Your task to perform on an android device: turn on javascript in the chrome app Image 0: 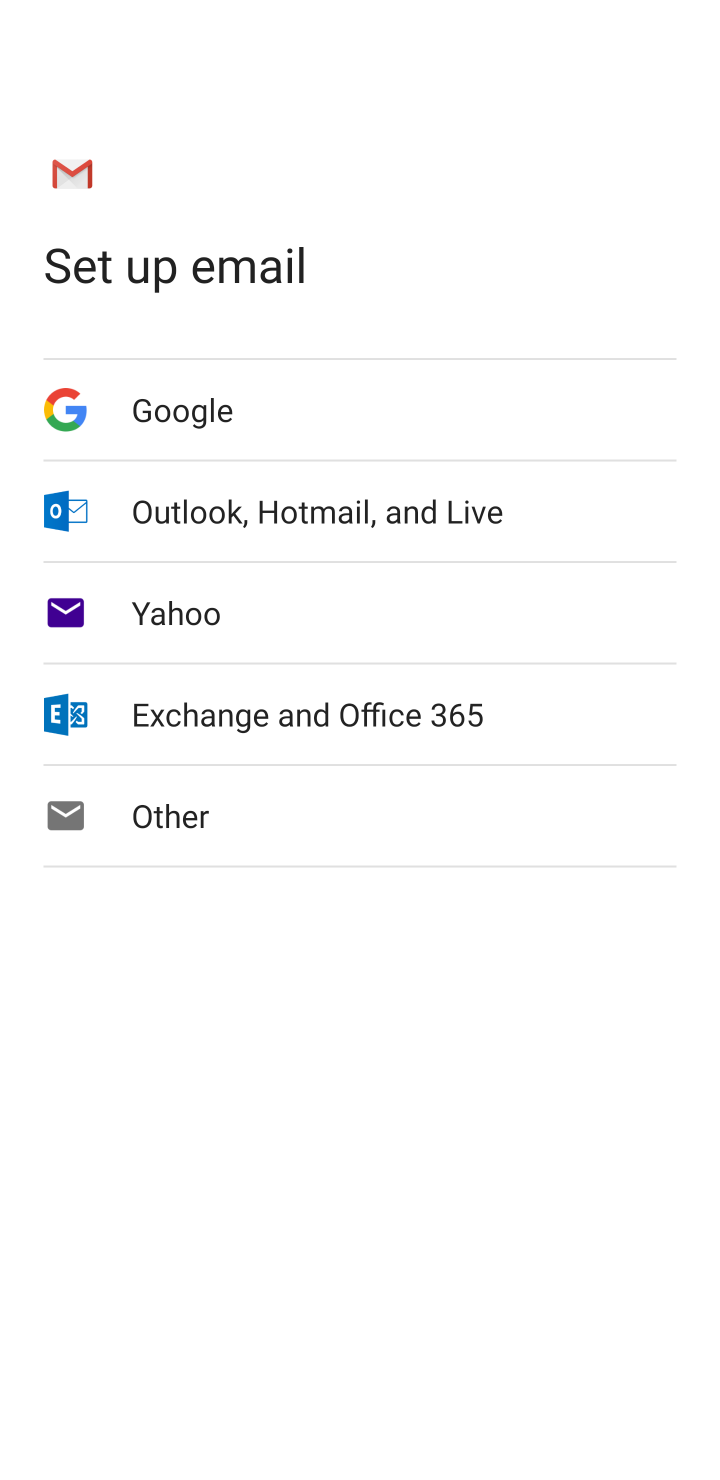
Step 0: press home button
Your task to perform on an android device: turn on javascript in the chrome app Image 1: 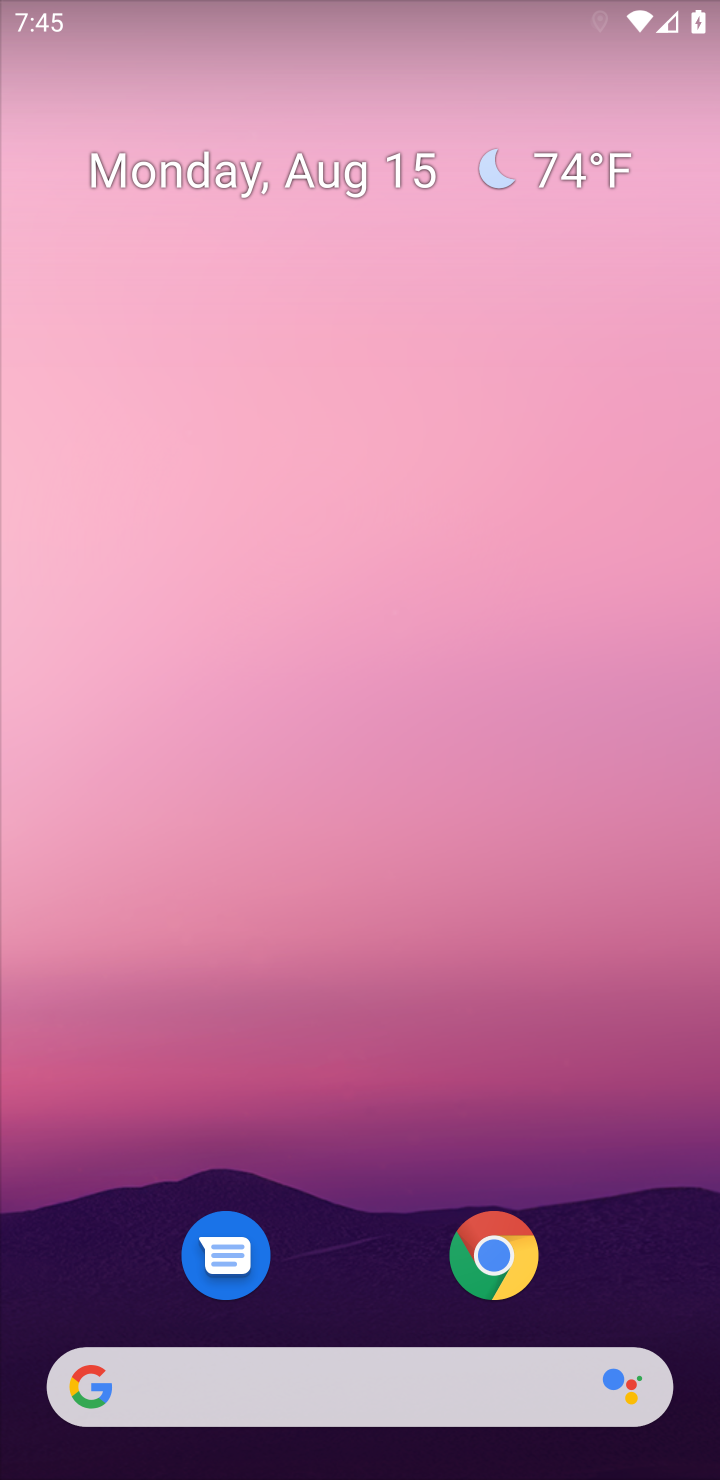
Step 1: click (484, 1248)
Your task to perform on an android device: turn on javascript in the chrome app Image 2: 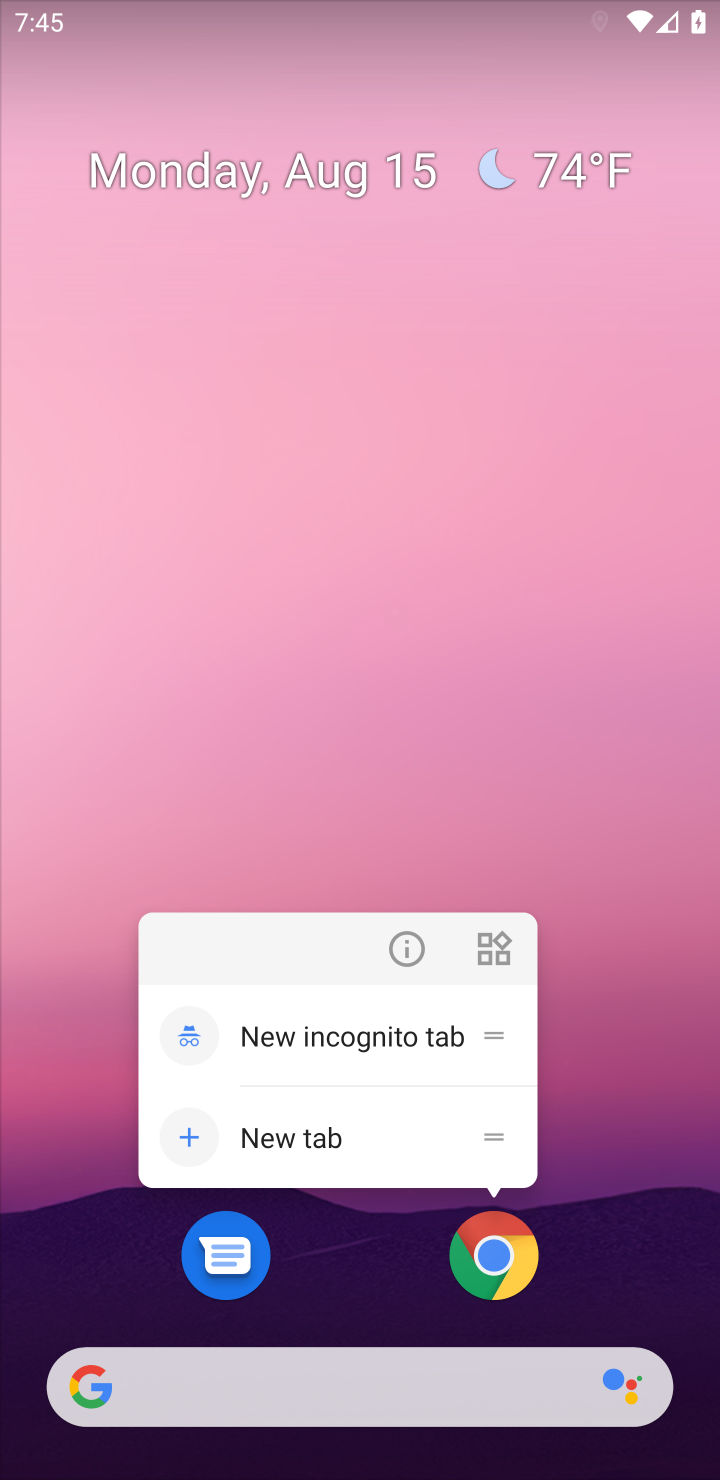
Step 2: click (623, 1225)
Your task to perform on an android device: turn on javascript in the chrome app Image 3: 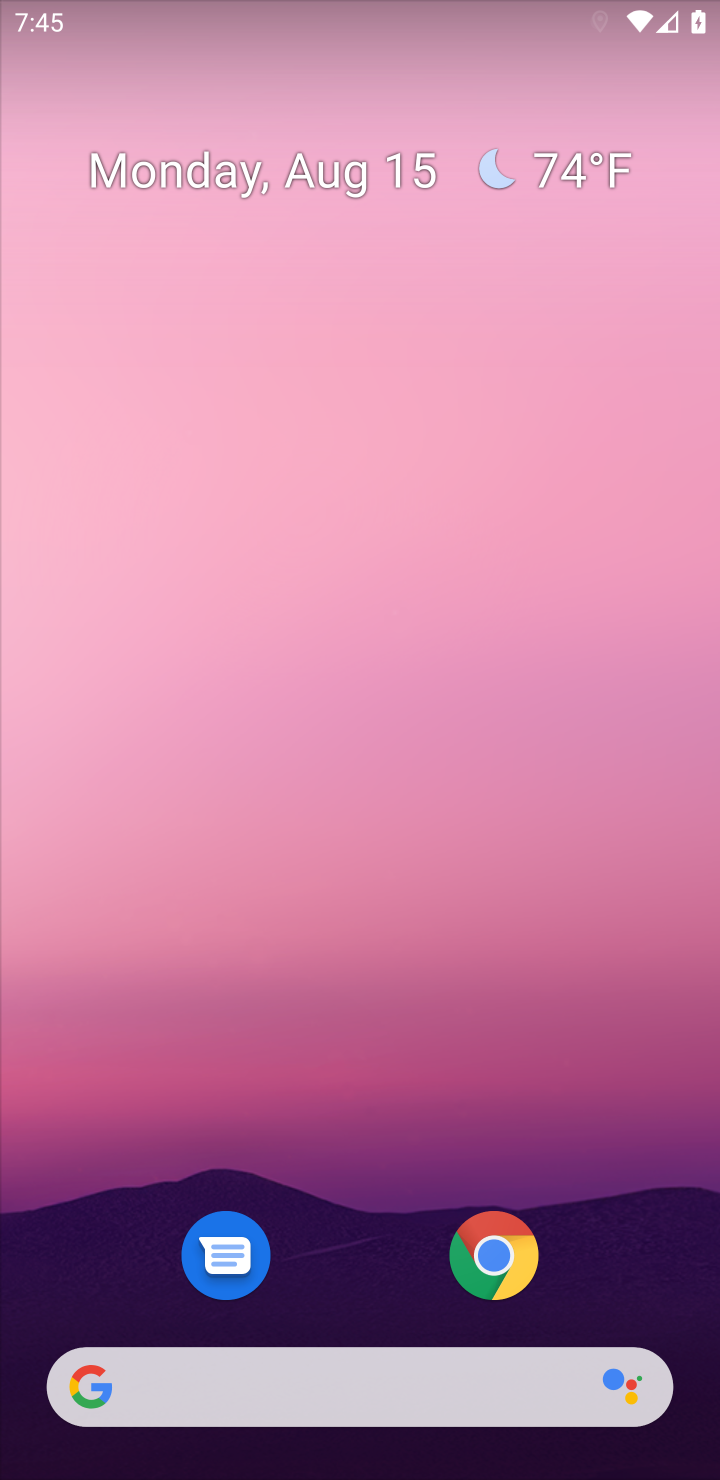
Step 3: drag from (602, 1311) to (592, 0)
Your task to perform on an android device: turn on javascript in the chrome app Image 4: 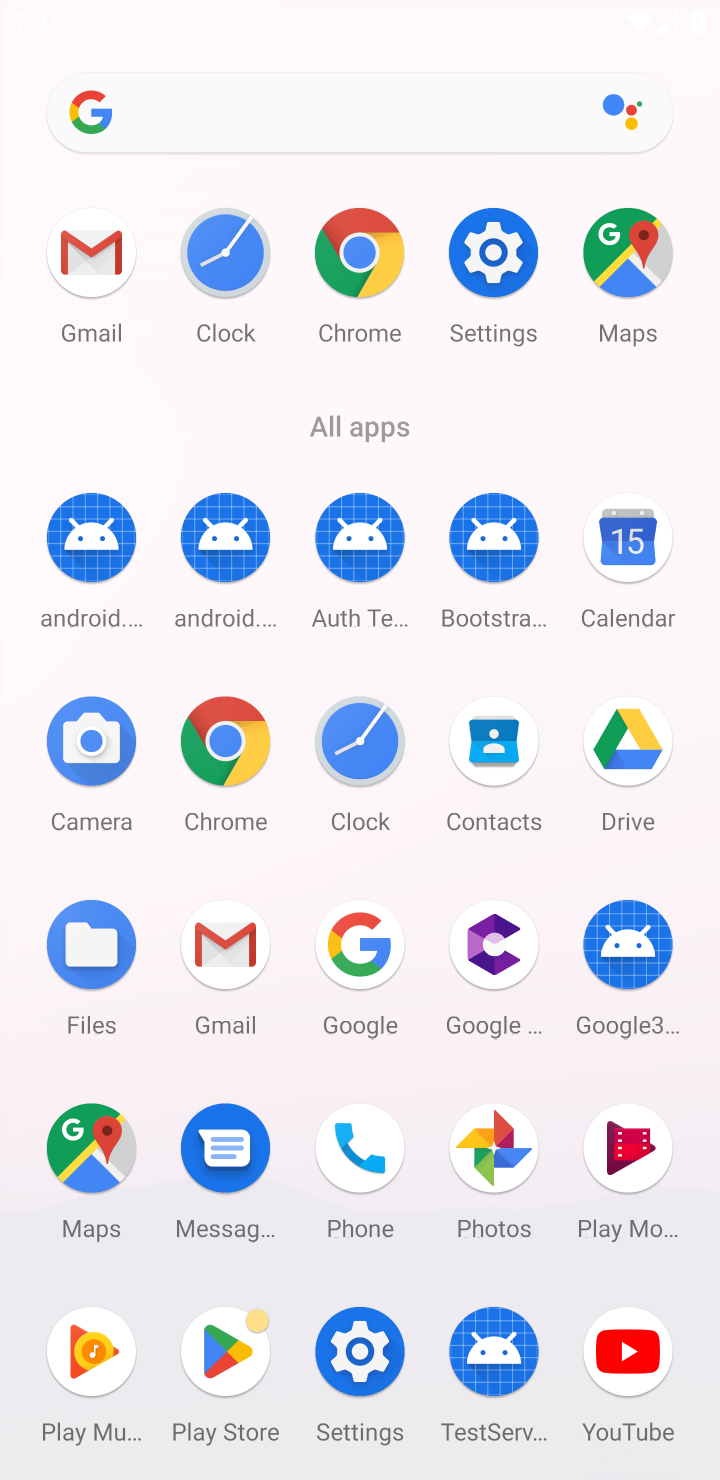
Step 4: click (360, 247)
Your task to perform on an android device: turn on javascript in the chrome app Image 5: 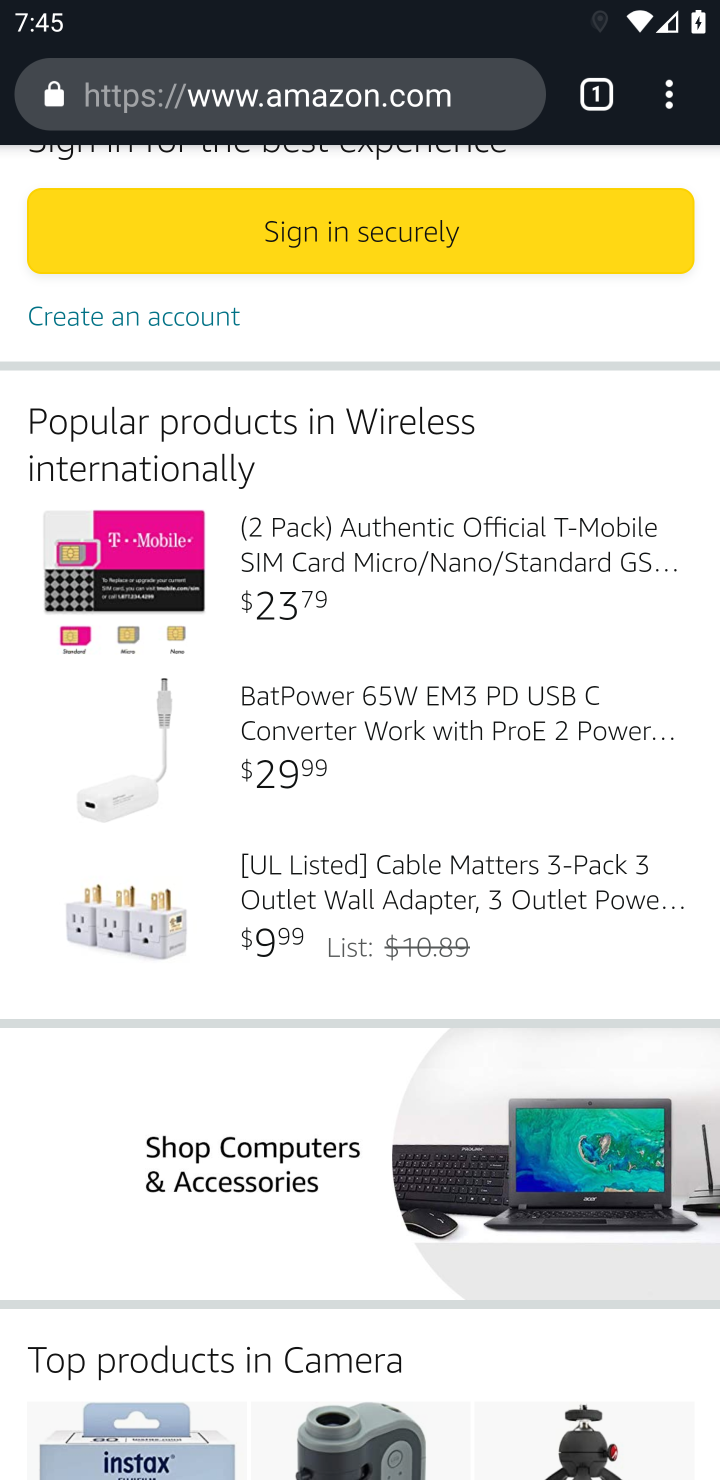
Step 5: click (669, 92)
Your task to perform on an android device: turn on javascript in the chrome app Image 6: 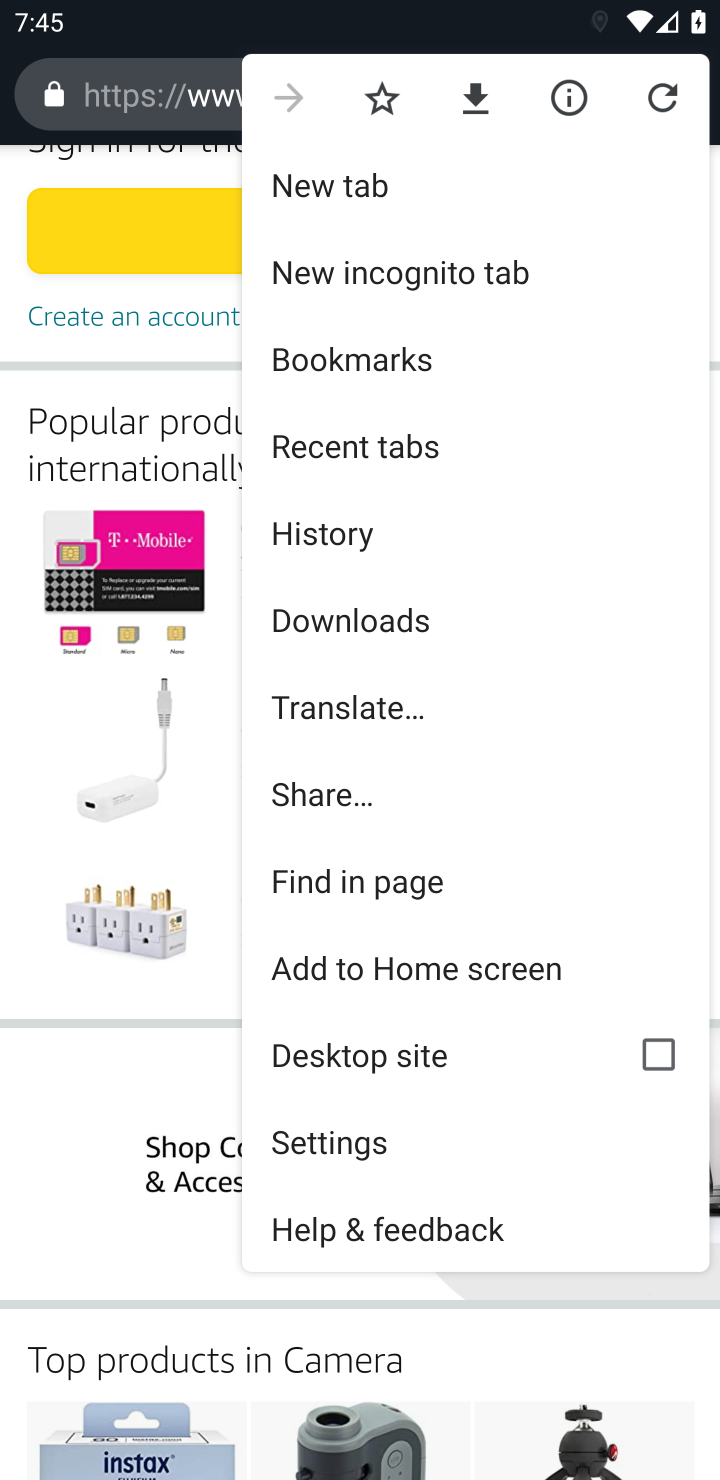
Step 6: click (393, 1138)
Your task to perform on an android device: turn on javascript in the chrome app Image 7: 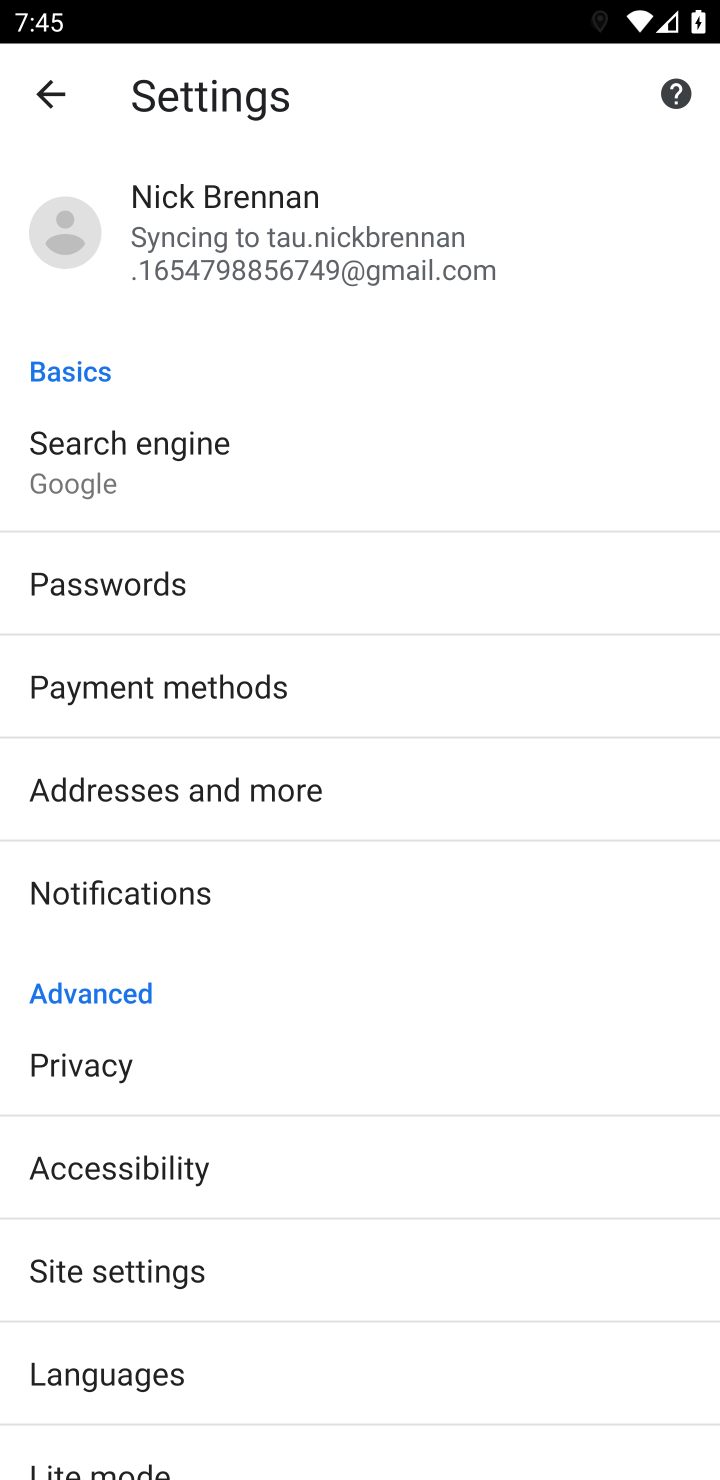
Step 7: click (232, 1278)
Your task to perform on an android device: turn on javascript in the chrome app Image 8: 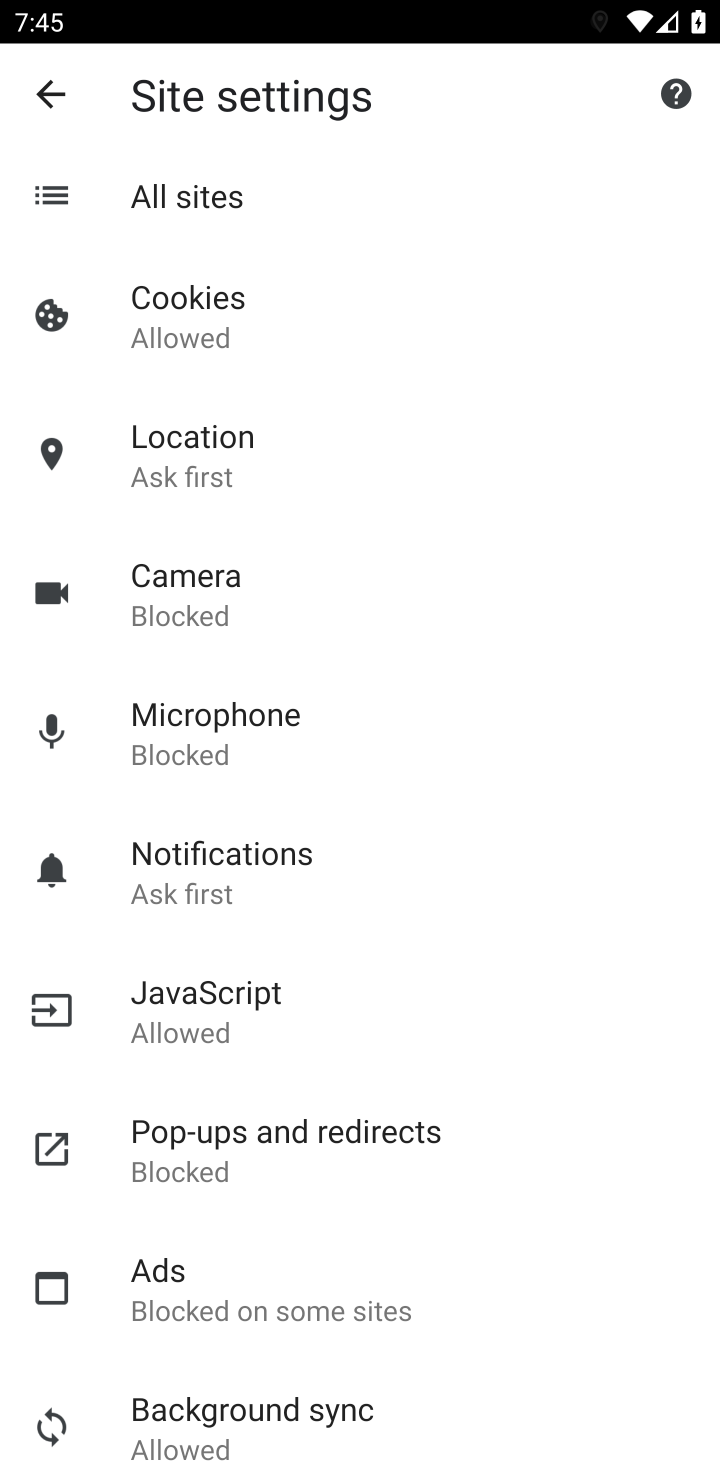
Step 8: click (283, 1008)
Your task to perform on an android device: turn on javascript in the chrome app Image 9: 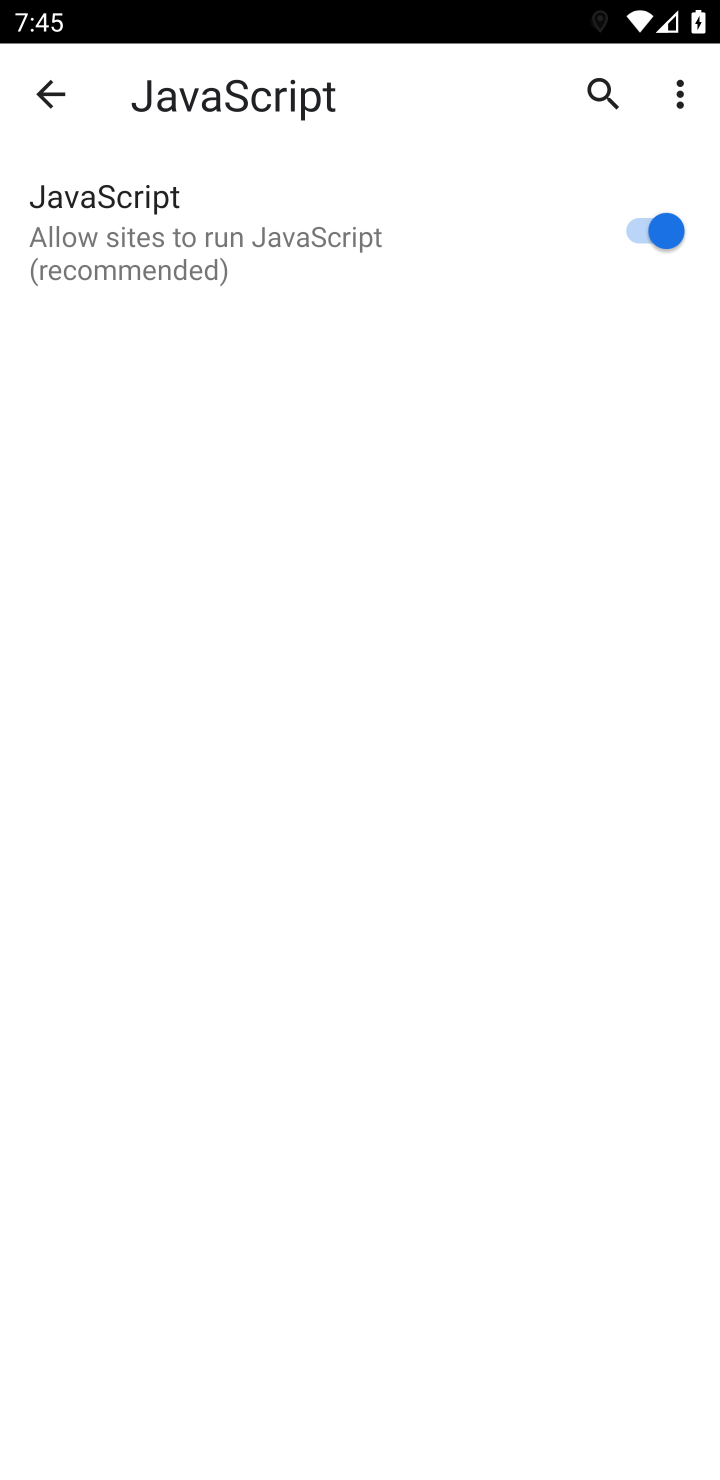
Step 9: task complete